Your task to perform on an android device: Go to CNN.com Image 0: 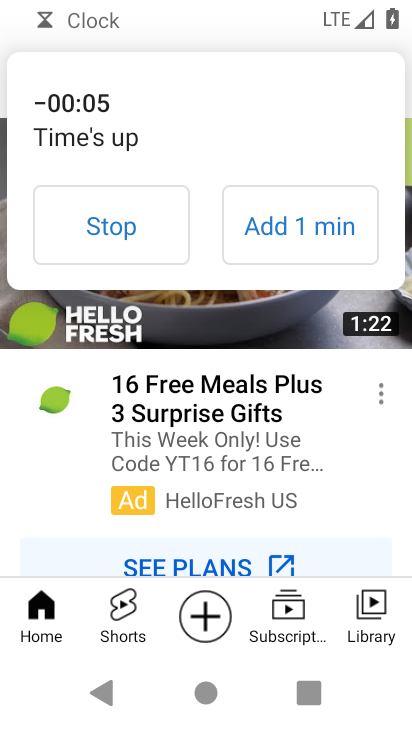
Step 0: click (106, 262)
Your task to perform on an android device: Go to CNN.com Image 1: 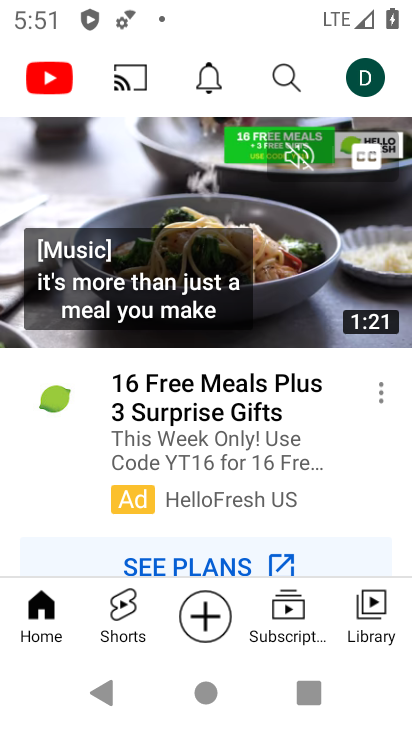
Step 1: press home button
Your task to perform on an android device: Go to CNN.com Image 2: 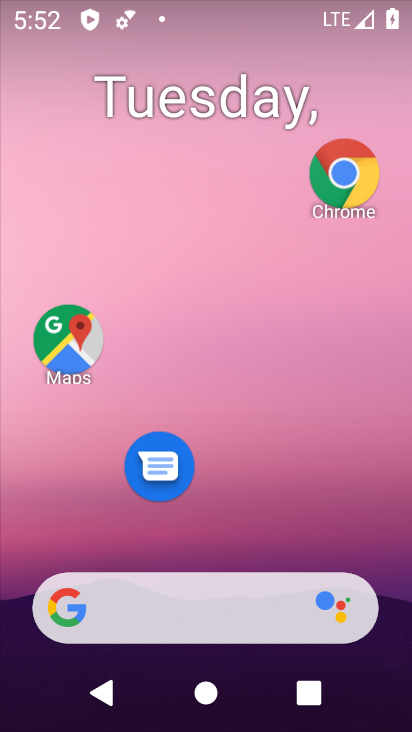
Step 2: click (324, 197)
Your task to perform on an android device: Go to CNN.com Image 3: 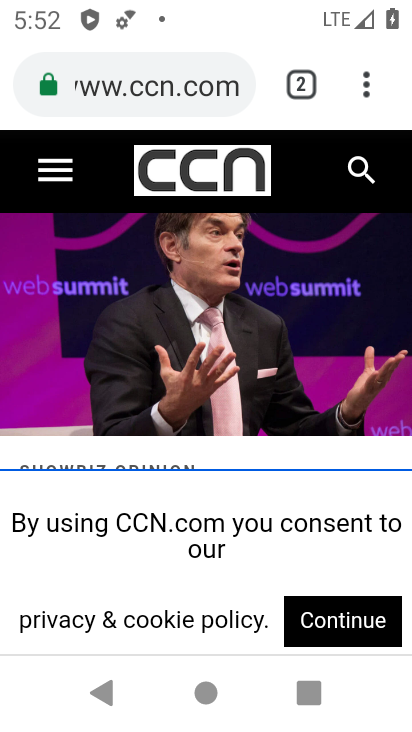
Step 3: click (193, 80)
Your task to perform on an android device: Go to CNN.com Image 4: 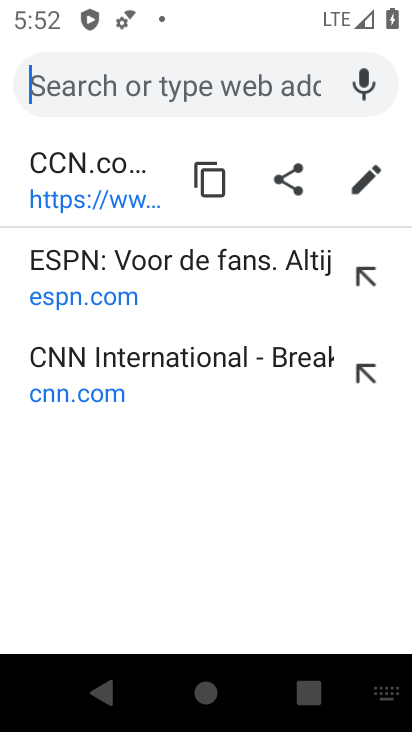
Step 4: click (280, 86)
Your task to perform on an android device: Go to CNN.com Image 5: 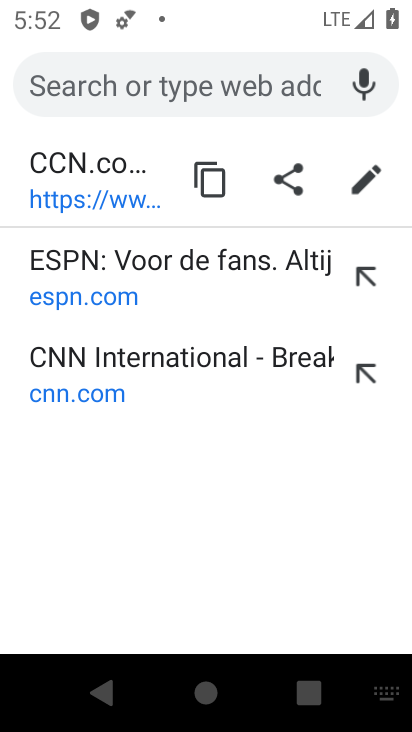
Step 5: type "CNN.com"
Your task to perform on an android device: Go to CNN.com Image 6: 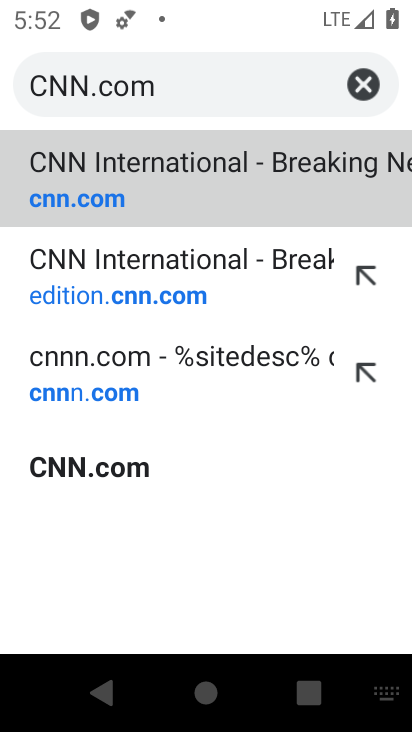
Step 6: click (53, 200)
Your task to perform on an android device: Go to CNN.com Image 7: 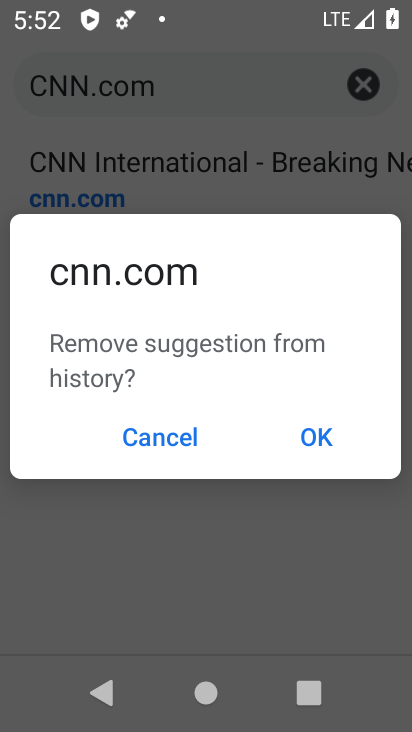
Step 7: click (164, 437)
Your task to perform on an android device: Go to CNN.com Image 8: 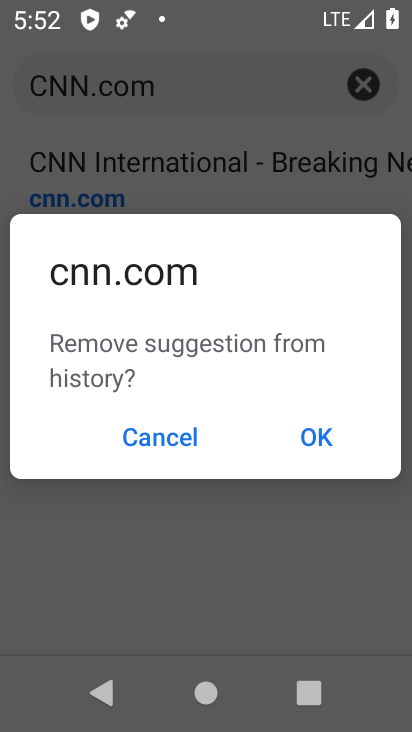
Step 8: click (182, 445)
Your task to perform on an android device: Go to CNN.com Image 9: 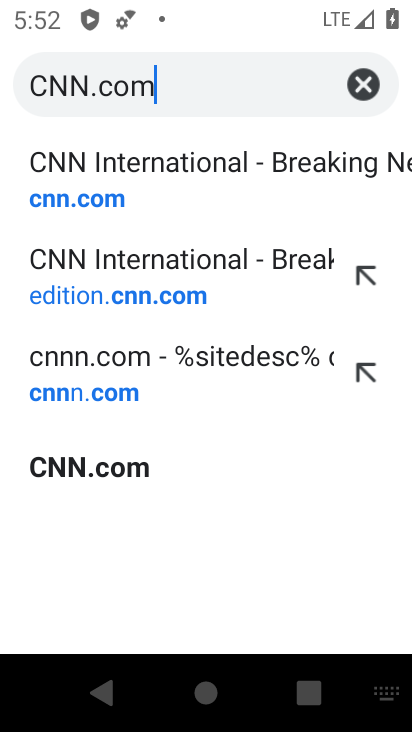
Step 9: click (119, 185)
Your task to perform on an android device: Go to CNN.com Image 10: 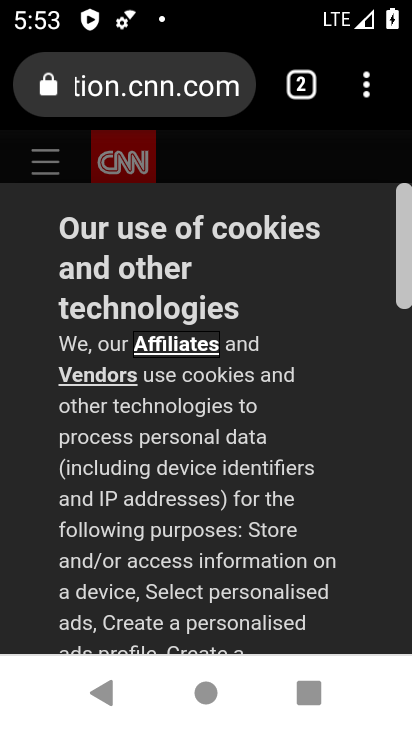
Step 10: task complete